Your task to perform on an android device: Open settings Image 0: 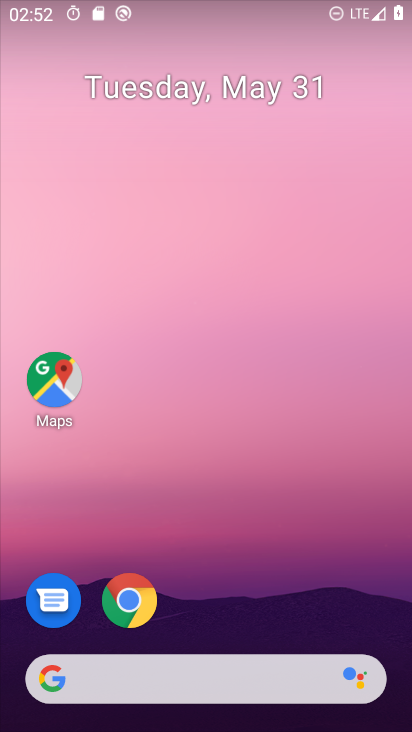
Step 0: drag from (238, 701) to (238, 36)
Your task to perform on an android device: Open settings Image 1: 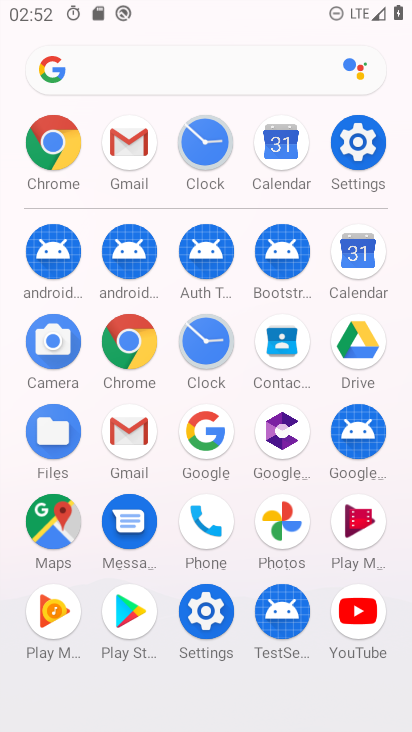
Step 1: click (360, 146)
Your task to perform on an android device: Open settings Image 2: 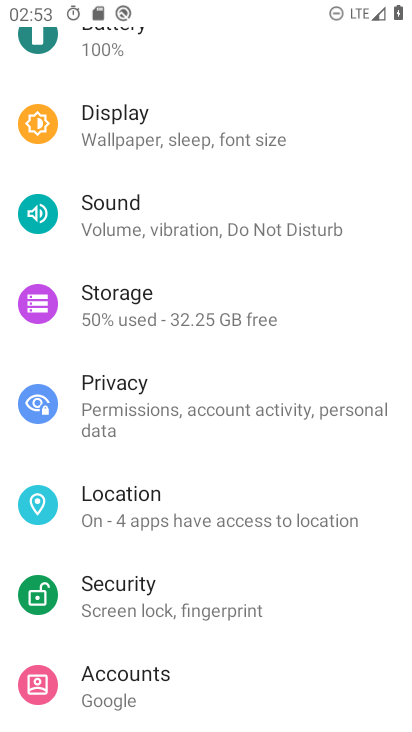
Step 2: task complete